Your task to perform on an android device: check android version Image 0: 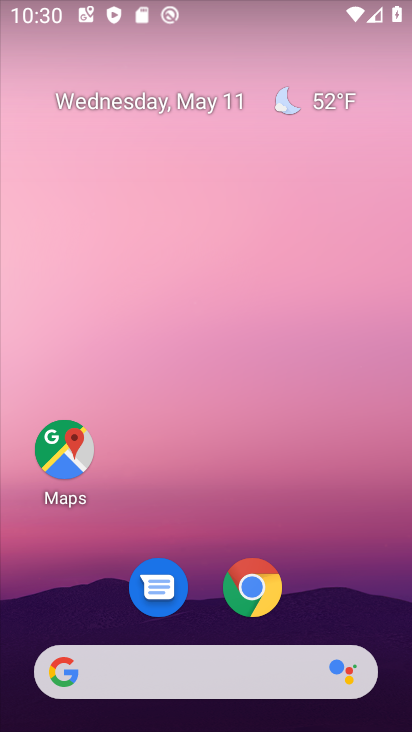
Step 0: drag from (252, 643) to (292, 269)
Your task to perform on an android device: check android version Image 1: 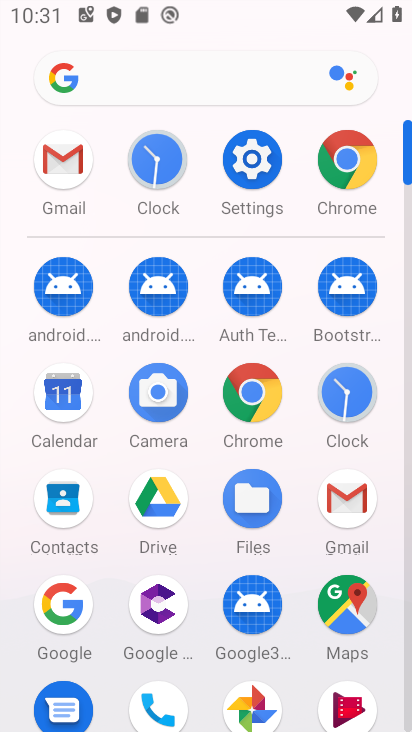
Step 1: click (262, 169)
Your task to perform on an android device: check android version Image 2: 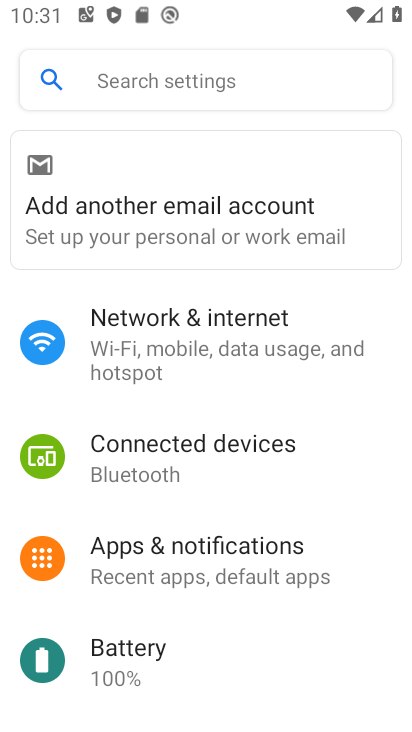
Step 2: click (188, 97)
Your task to perform on an android device: check android version Image 3: 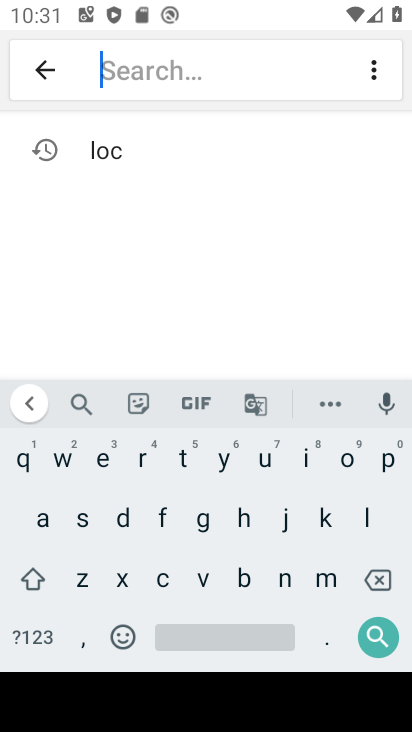
Step 3: click (45, 527)
Your task to perform on an android device: check android version Image 4: 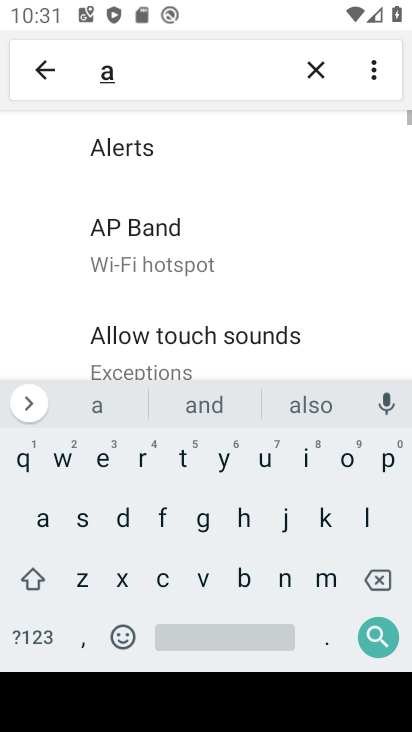
Step 4: click (292, 572)
Your task to perform on an android device: check android version Image 5: 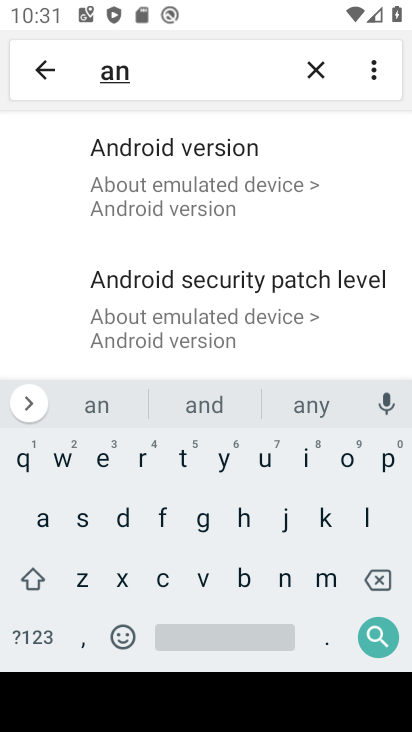
Step 5: click (212, 185)
Your task to perform on an android device: check android version Image 6: 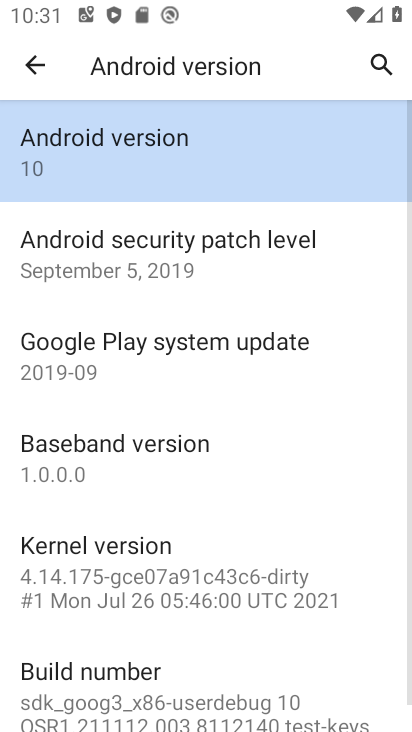
Step 6: click (141, 162)
Your task to perform on an android device: check android version Image 7: 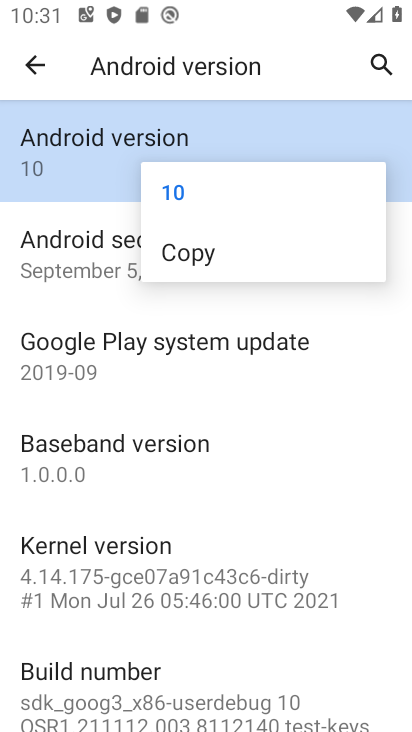
Step 7: task complete